Your task to perform on an android device: change the clock style Image 0: 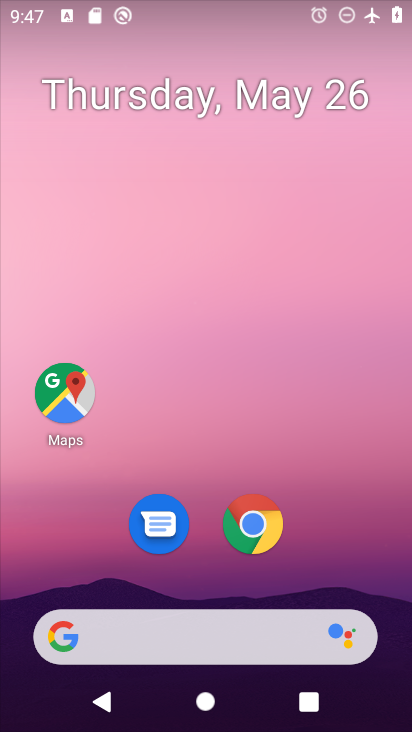
Step 0: drag from (199, 465) to (188, 0)
Your task to perform on an android device: change the clock style Image 1: 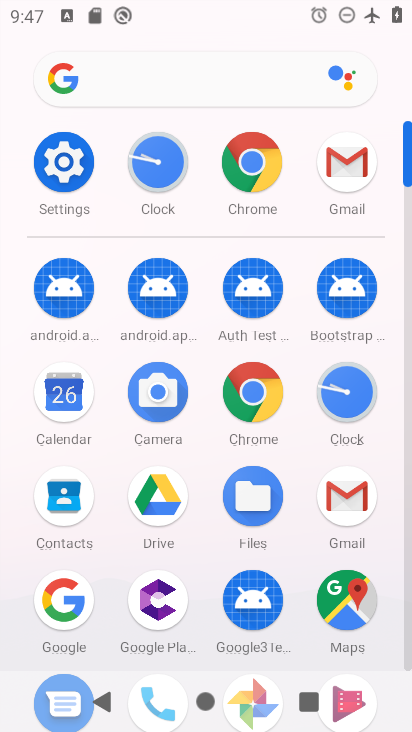
Step 1: click (167, 158)
Your task to perform on an android device: change the clock style Image 2: 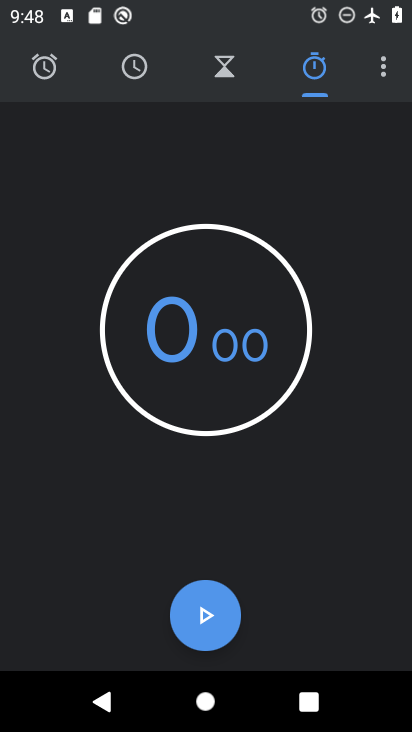
Step 2: click (51, 68)
Your task to perform on an android device: change the clock style Image 3: 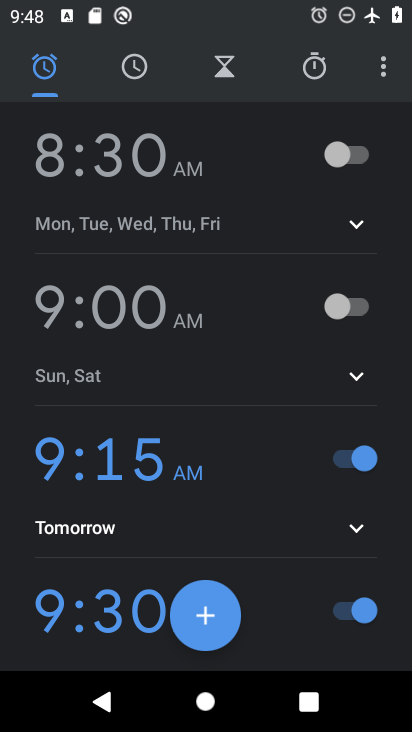
Step 3: click (138, 81)
Your task to perform on an android device: change the clock style Image 4: 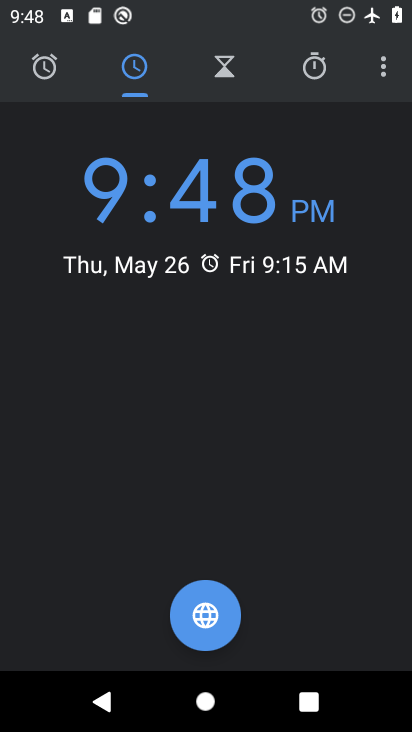
Step 4: click (377, 68)
Your task to perform on an android device: change the clock style Image 5: 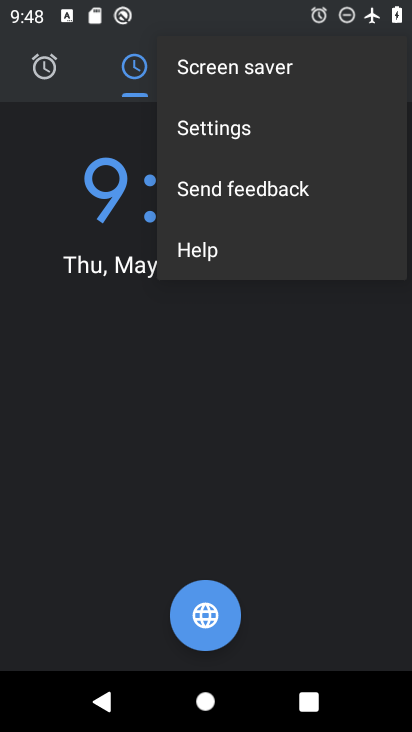
Step 5: click (294, 122)
Your task to perform on an android device: change the clock style Image 6: 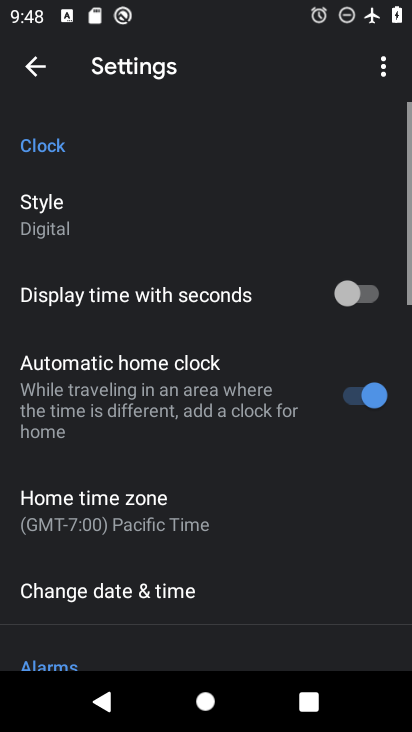
Step 6: click (125, 207)
Your task to perform on an android device: change the clock style Image 7: 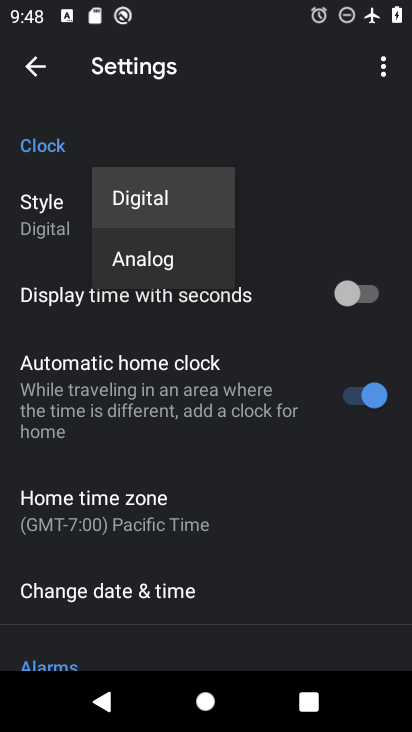
Step 7: click (133, 258)
Your task to perform on an android device: change the clock style Image 8: 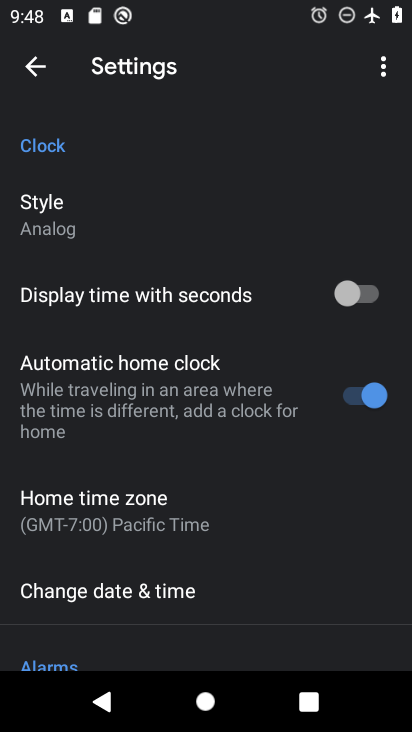
Step 8: click (40, 65)
Your task to perform on an android device: change the clock style Image 9: 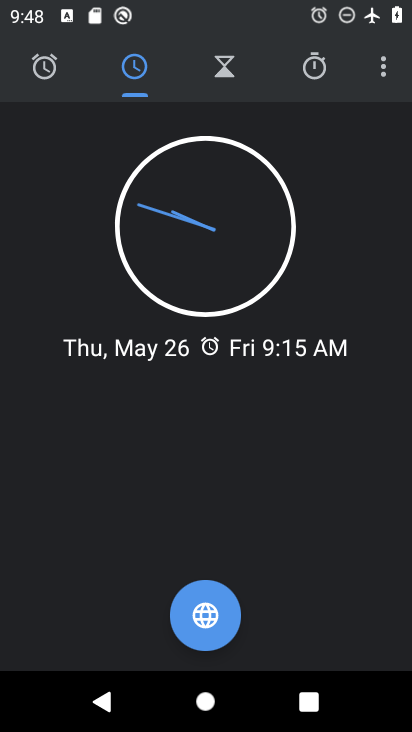
Step 9: task complete